Your task to perform on an android device: Is it going to rain today? Image 0: 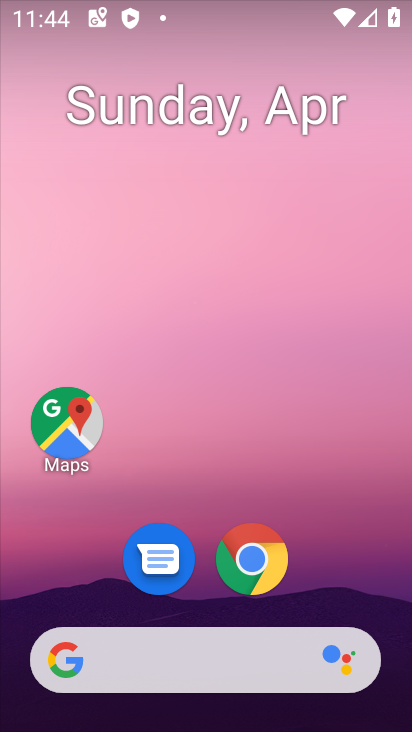
Step 0: click (202, 647)
Your task to perform on an android device: Is it going to rain today? Image 1: 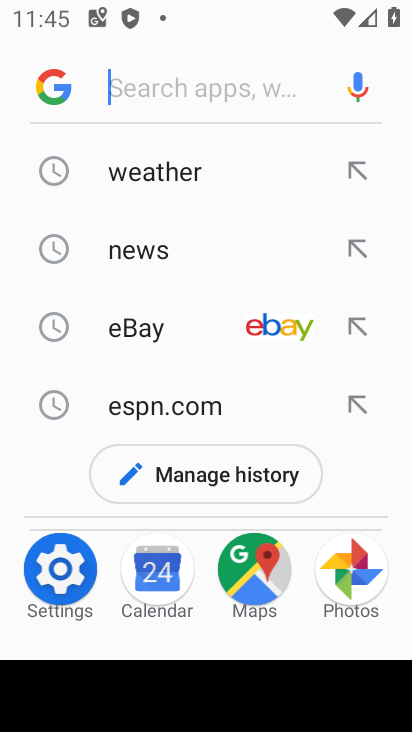
Step 1: click (206, 161)
Your task to perform on an android device: Is it going to rain today? Image 2: 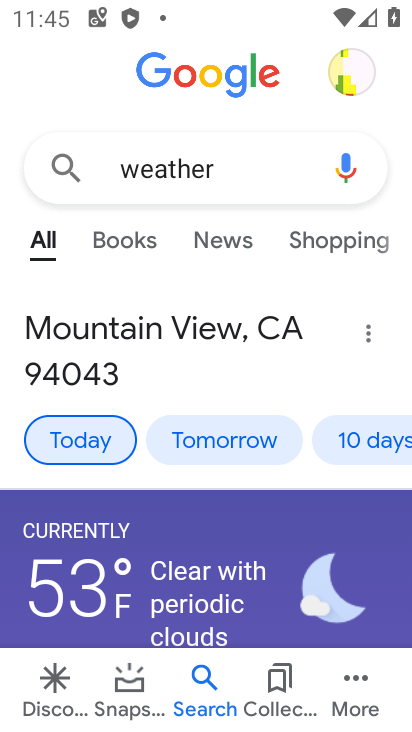
Step 2: task complete